Your task to perform on an android device: Open Yahoo.com Image 0: 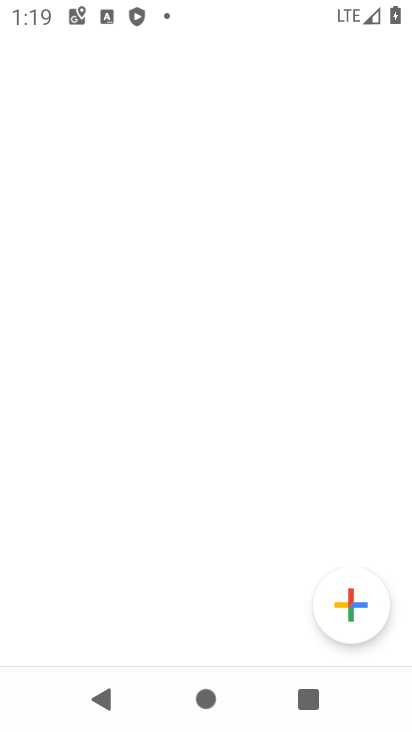
Step 0: drag from (391, 632) to (399, 116)
Your task to perform on an android device: Open Yahoo.com Image 1: 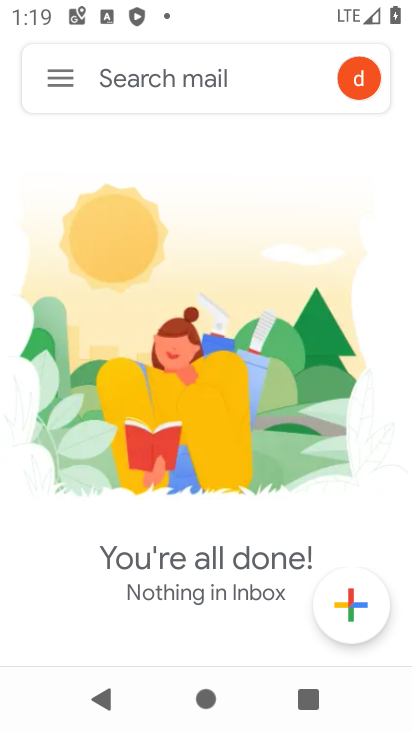
Step 1: press home button
Your task to perform on an android device: Open Yahoo.com Image 2: 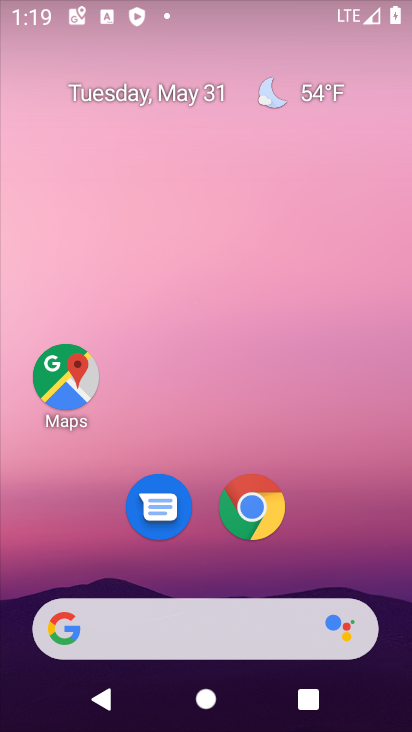
Step 2: drag from (396, 644) to (339, 54)
Your task to perform on an android device: Open Yahoo.com Image 3: 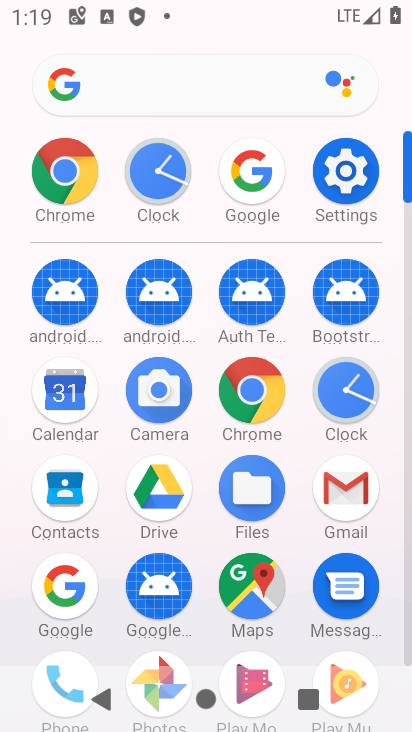
Step 3: click (61, 579)
Your task to perform on an android device: Open Yahoo.com Image 4: 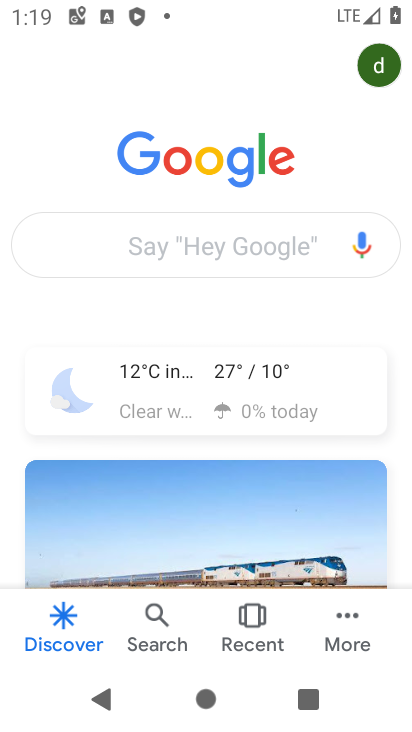
Step 4: click (173, 234)
Your task to perform on an android device: Open Yahoo.com Image 5: 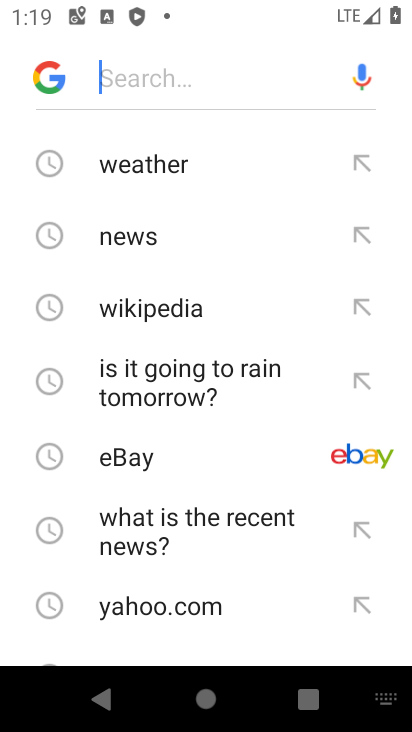
Step 5: click (213, 614)
Your task to perform on an android device: Open Yahoo.com Image 6: 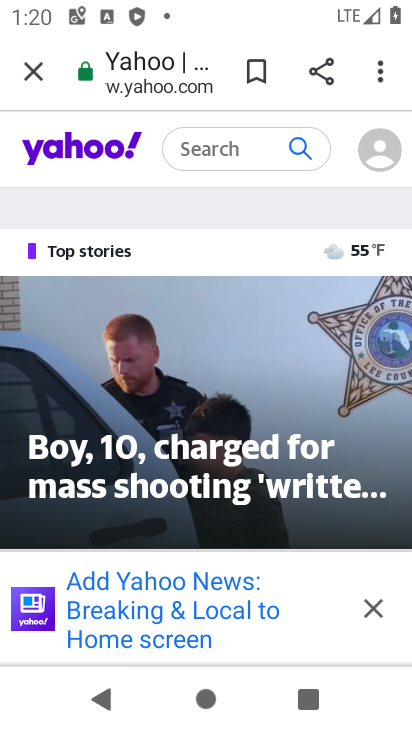
Step 6: task complete